Your task to perform on an android device: Do I have any events today? Image 0: 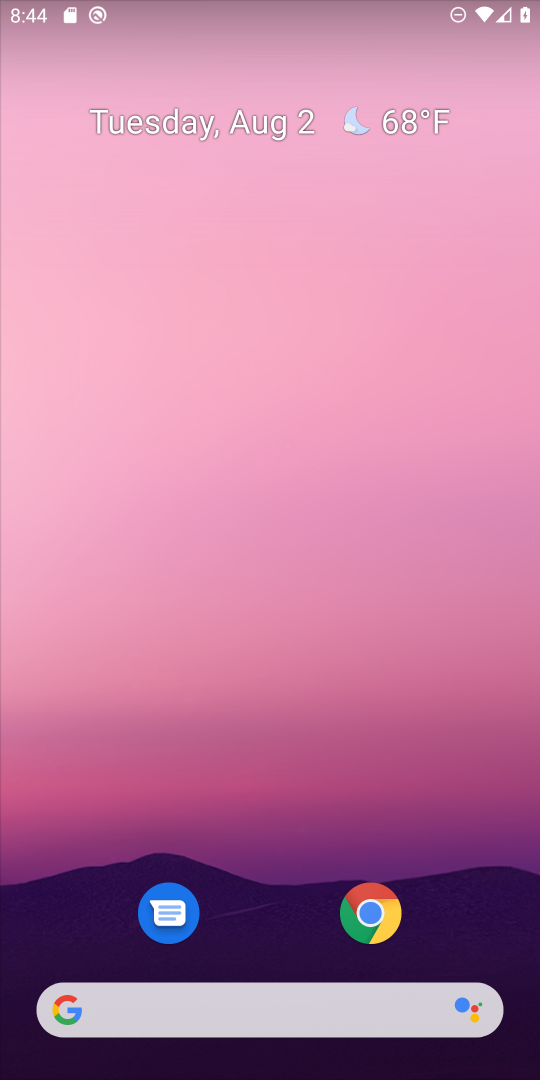
Step 0: drag from (299, 827) to (373, 10)
Your task to perform on an android device: Do I have any events today? Image 1: 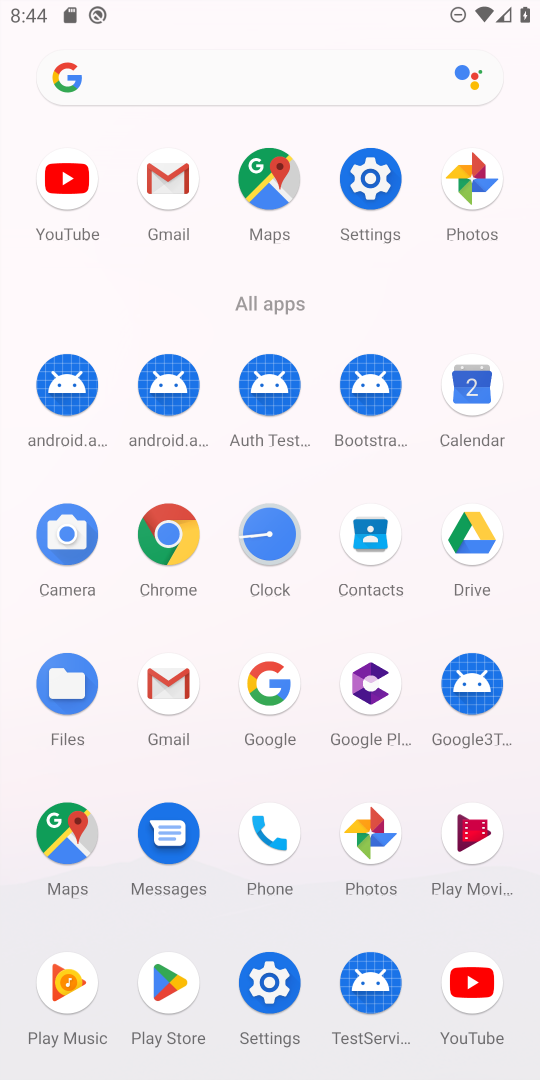
Step 1: click (471, 409)
Your task to perform on an android device: Do I have any events today? Image 2: 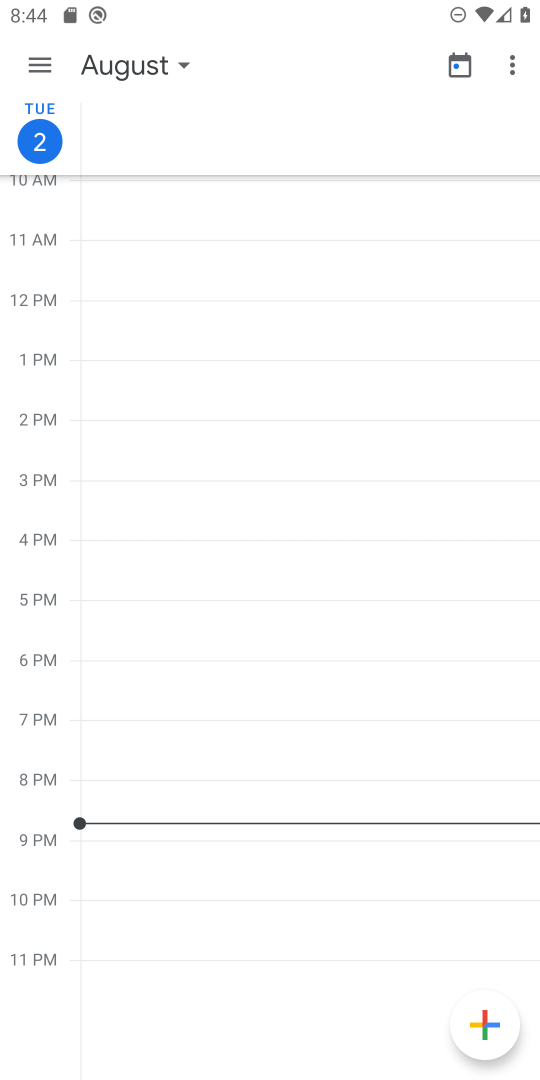
Step 2: click (42, 62)
Your task to perform on an android device: Do I have any events today? Image 3: 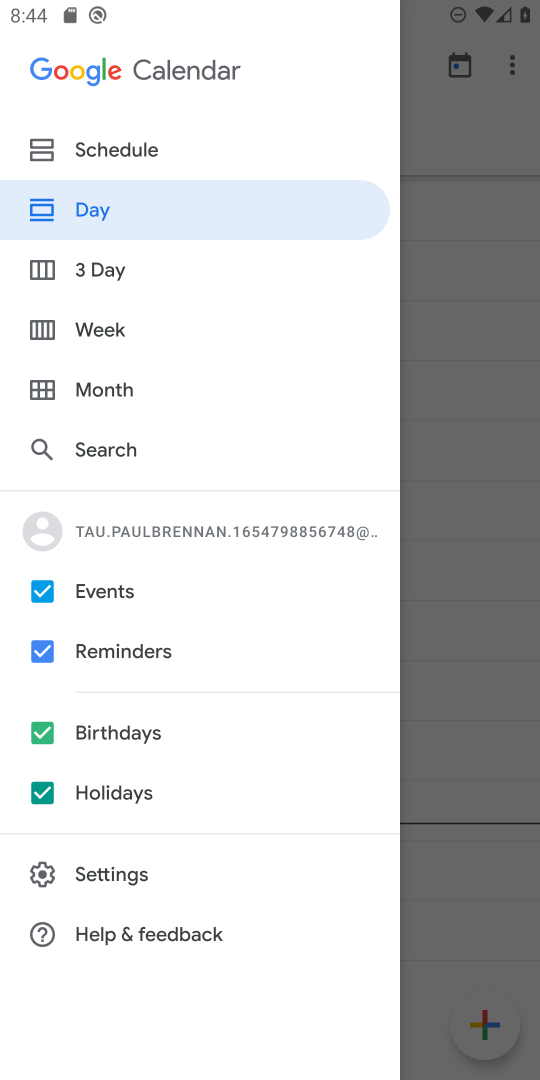
Step 3: click (105, 148)
Your task to perform on an android device: Do I have any events today? Image 4: 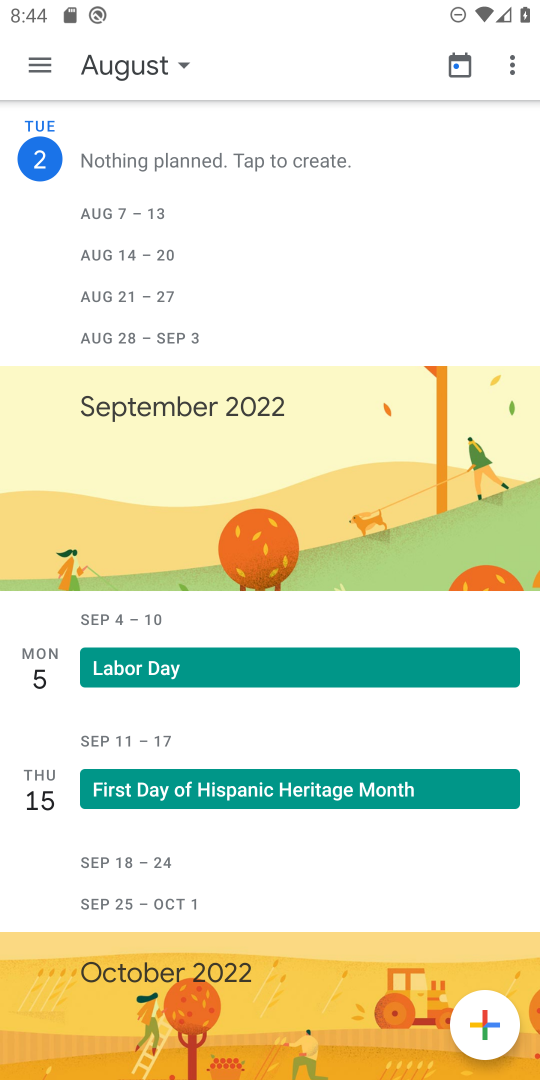
Step 4: task complete